Your task to perform on an android device: turn notification dots off Image 0: 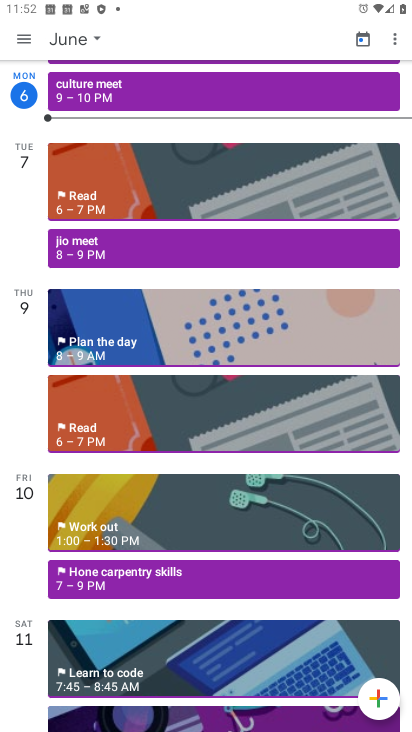
Step 0: press home button
Your task to perform on an android device: turn notification dots off Image 1: 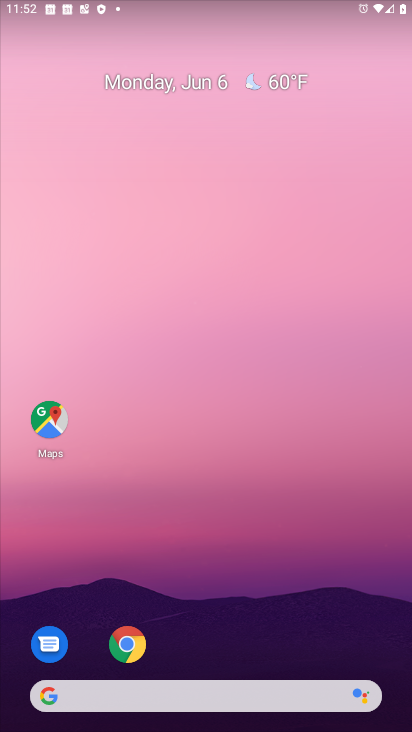
Step 1: drag from (139, 717) to (98, 111)
Your task to perform on an android device: turn notification dots off Image 2: 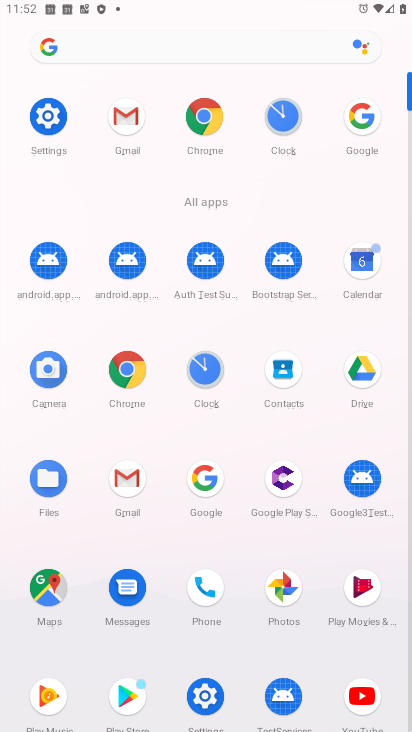
Step 2: click (47, 112)
Your task to perform on an android device: turn notification dots off Image 3: 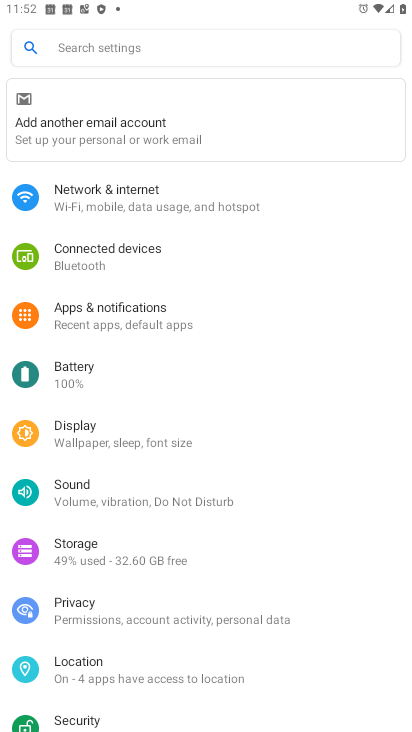
Step 3: click (144, 321)
Your task to perform on an android device: turn notification dots off Image 4: 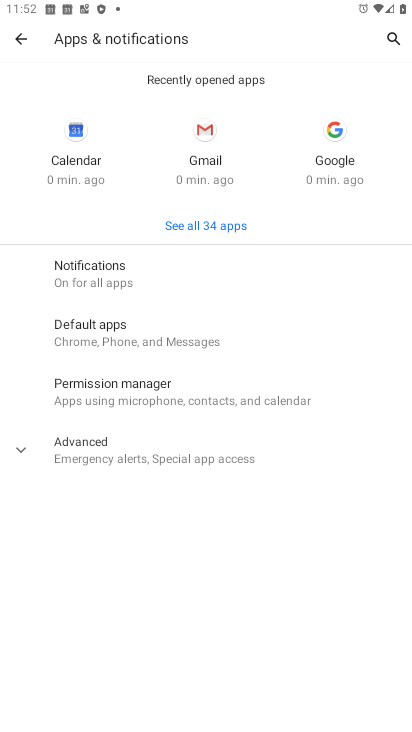
Step 4: click (119, 279)
Your task to perform on an android device: turn notification dots off Image 5: 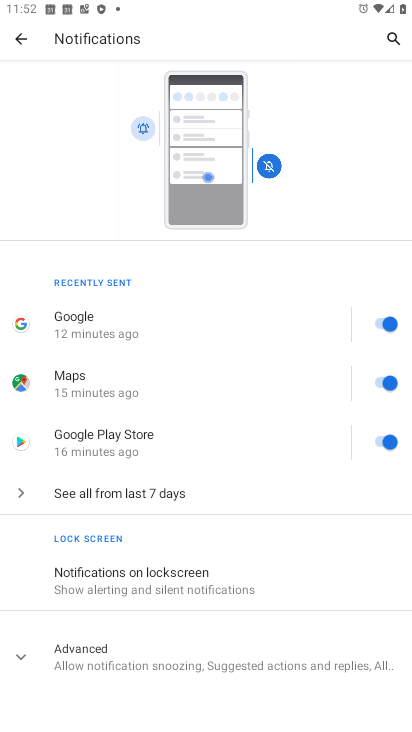
Step 5: click (168, 671)
Your task to perform on an android device: turn notification dots off Image 6: 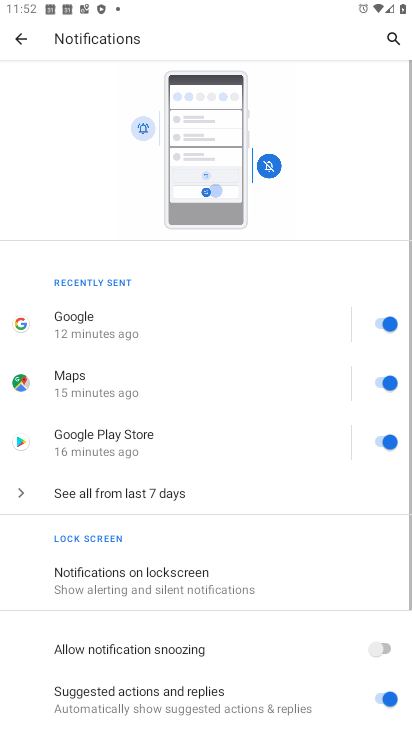
Step 6: drag from (227, 684) to (246, 397)
Your task to perform on an android device: turn notification dots off Image 7: 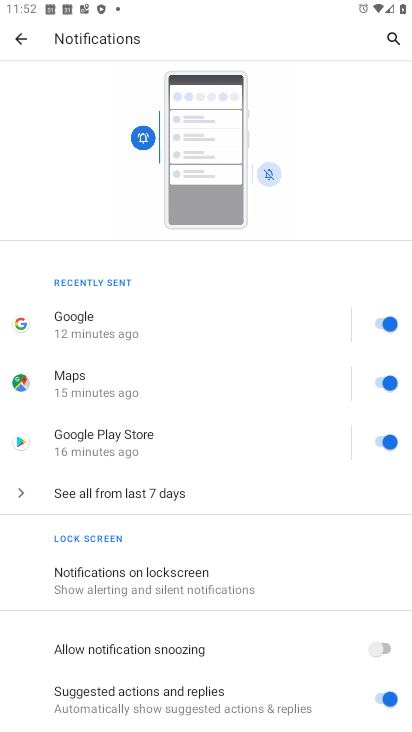
Step 7: drag from (41, 710) to (68, 364)
Your task to perform on an android device: turn notification dots off Image 8: 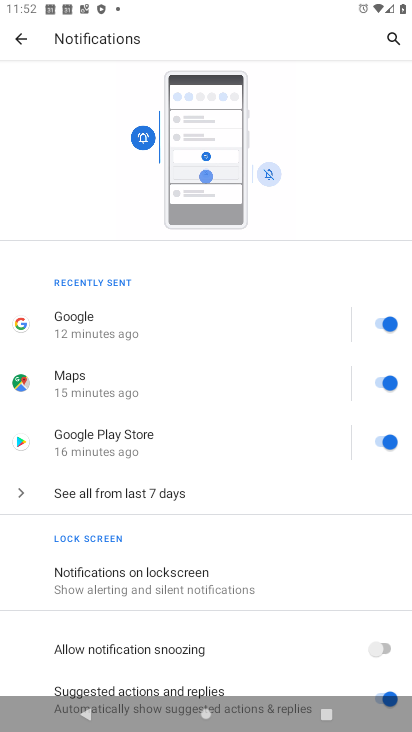
Step 8: drag from (42, 653) to (48, 235)
Your task to perform on an android device: turn notification dots off Image 9: 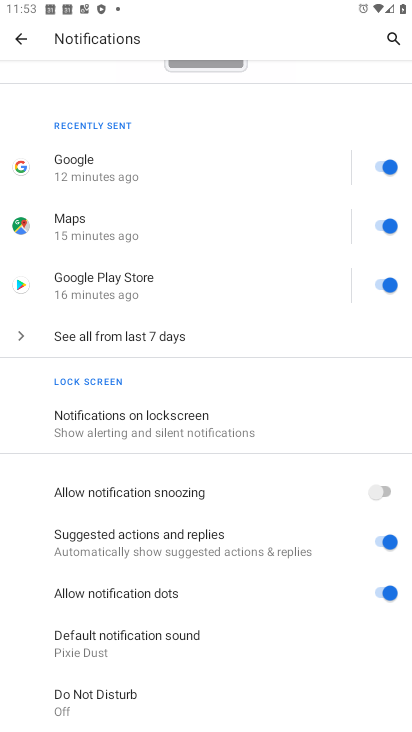
Step 9: click (388, 591)
Your task to perform on an android device: turn notification dots off Image 10: 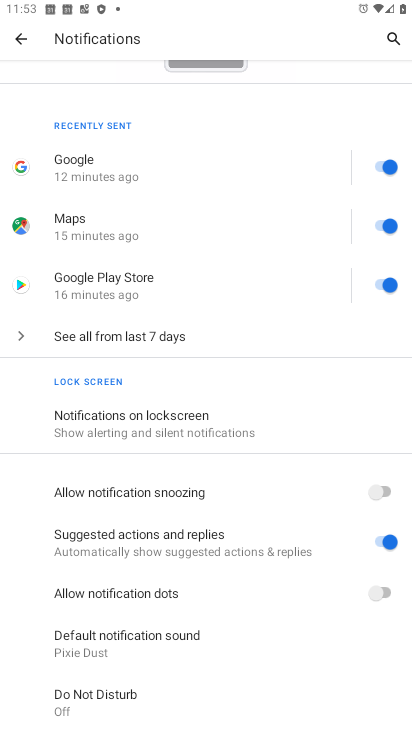
Step 10: task complete